Your task to perform on an android device: Open battery settings Image 0: 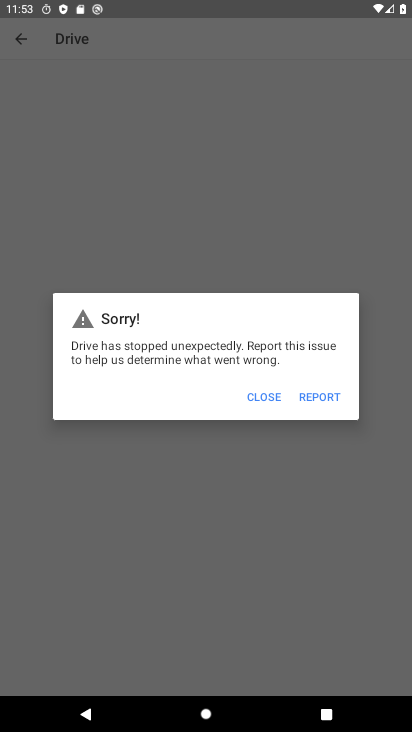
Step 0: press home button
Your task to perform on an android device: Open battery settings Image 1: 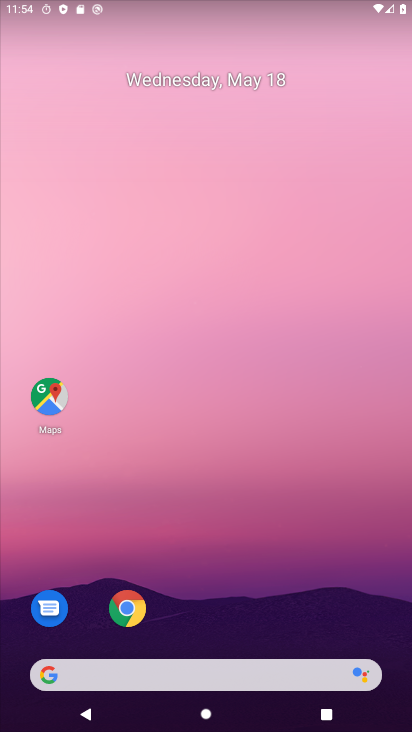
Step 1: drag from (251, 613) to (231, 41)
Your task to perform on an android device: Open battery settings Image 2: 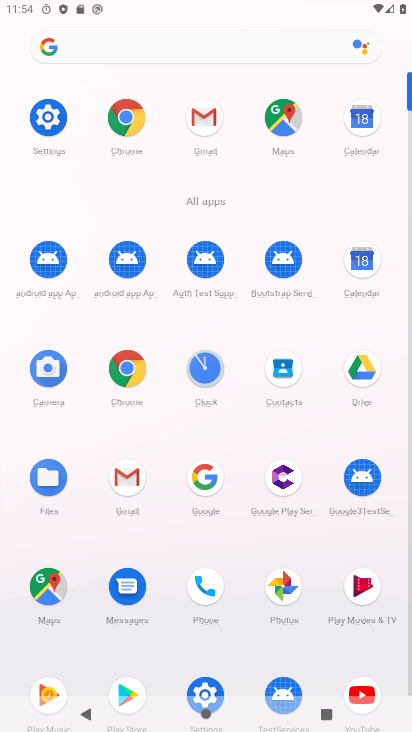
Step 2: click (42, 136)
Your task to perform on an android device: Open battery settings Image 3: 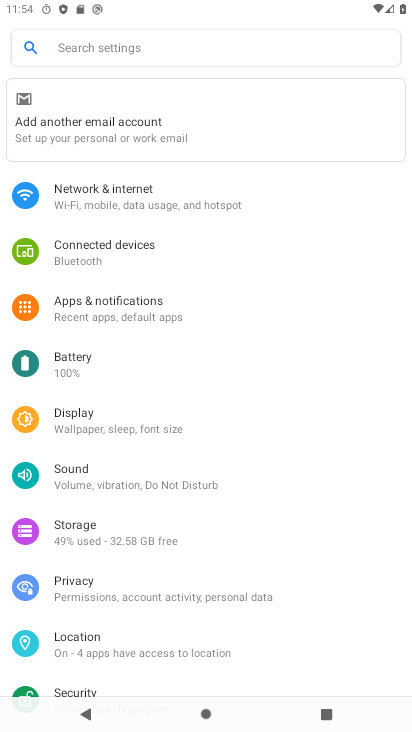
Step 3: click (136, 376)
Your task to perform on an android device: Open battery settings Image 4: 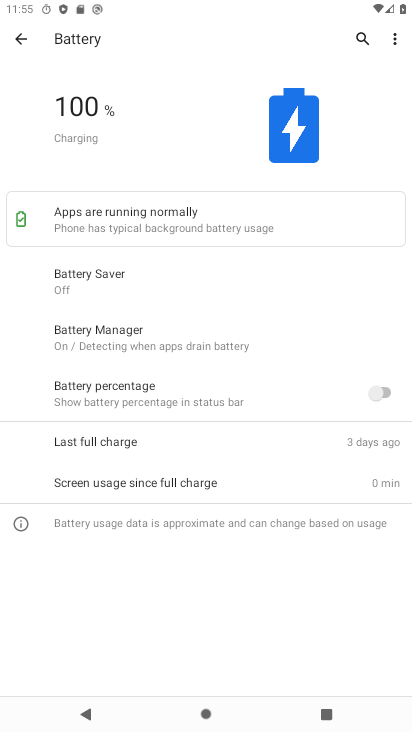
Step 4: task complete